Your task to perform on an android device: Open Google Maps Image 0: 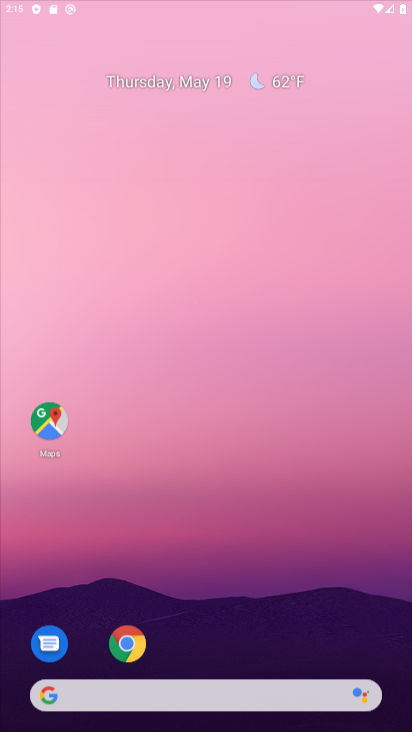
Step 0: click (288, 190)
Your task to perform on an android device: Open Google Maps Image 1: 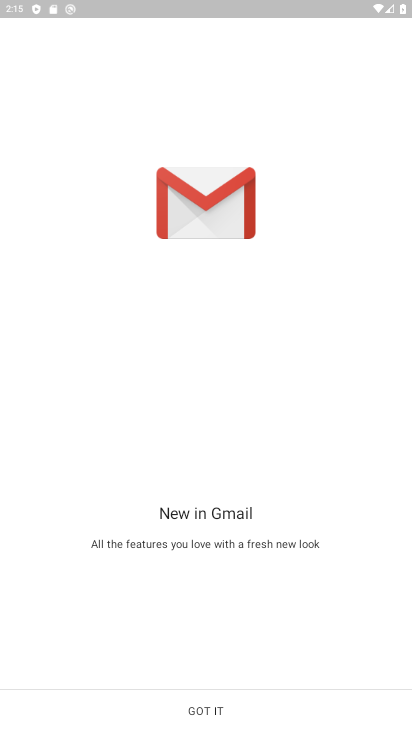
Step 1: press home button
Your task to perform on an android device: Open Google Maps Image 2: 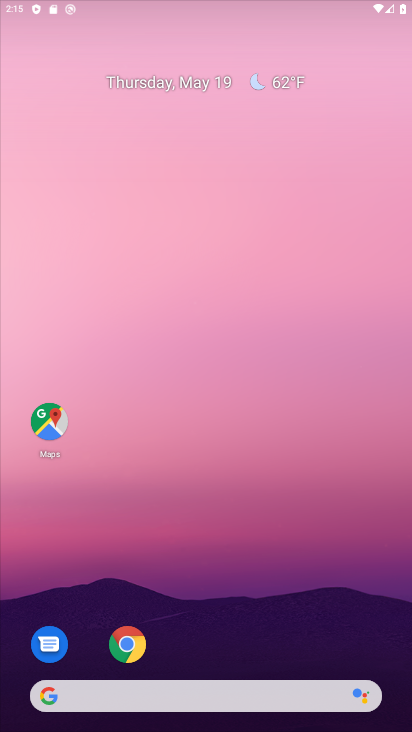
Step 2: click (270, 591)
Your task to perform on an android device: Open Google Maps Image 3: 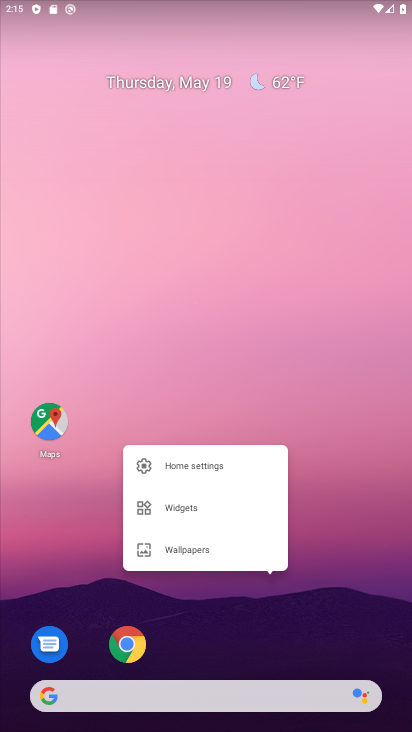
Step 3: click (52, 424)
Your task to perform on an android device: Open Google Maps Image 4: 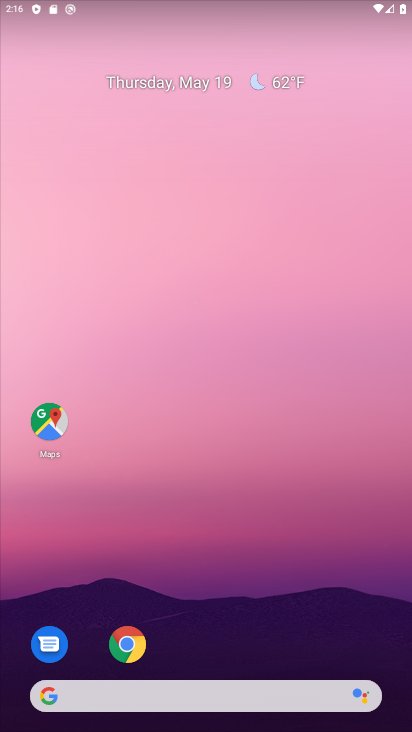
Step 4: click (55, 428)
Your task to perform on an android device: Open Google Maps Image 5: 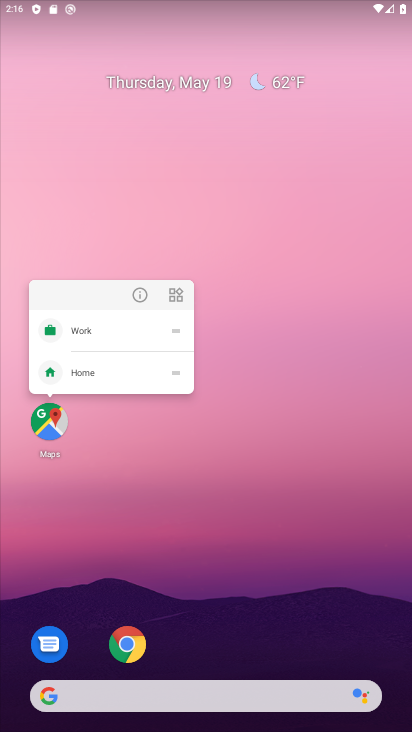
Step 5: click (50, 433)
Your task to perform on an android device: Open Google Maps Image 6: 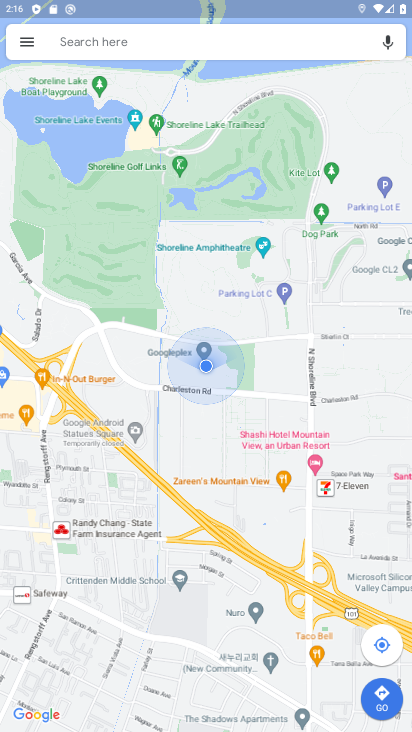
Step 6: task complete